Your task to perform on an android device: Go to settings Image 0: 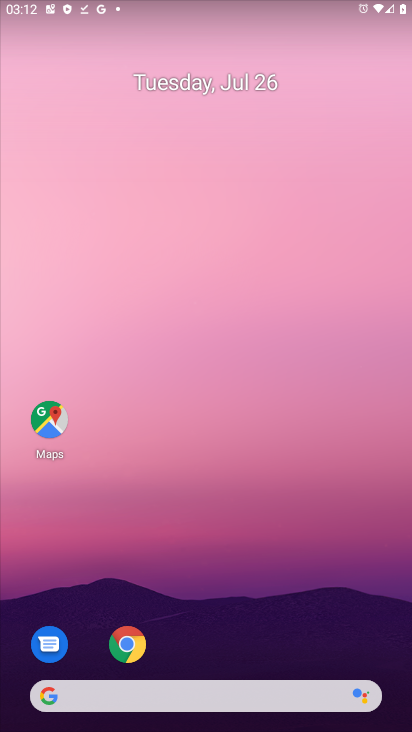
Step 0: drag from (213, 653) to (217, 96)
Your task to perform on an android device: Go to settings Image 1: 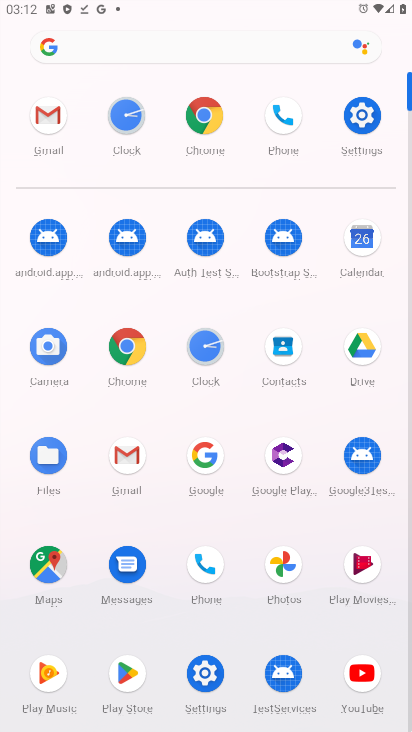
Step 1: click (204, 678)
Your task to perform on an android device: Go to settings Image 2: 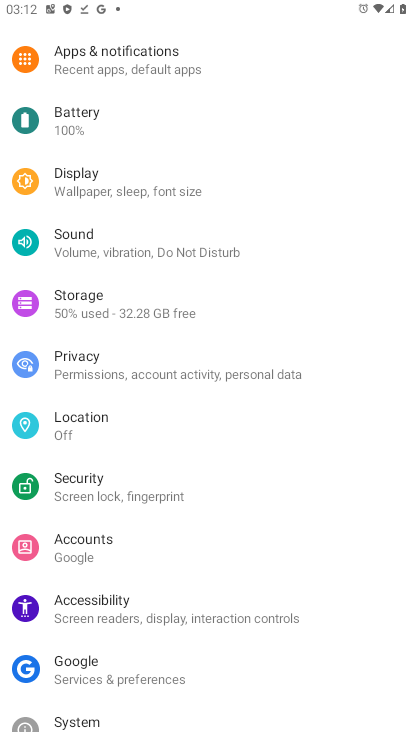
Step 2: task complete